Your task to perform on an android device: turn on showing notifications on the lock screen Image 0: 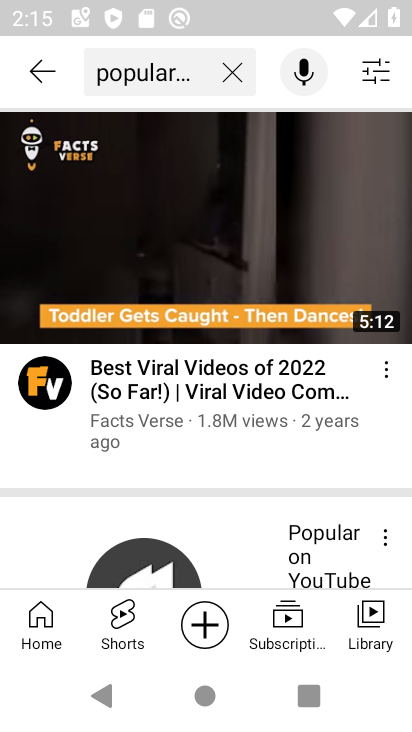
Step 0: press home button
Your task to perform on an android device: turn on showing notifications on the lock screen Image 1: 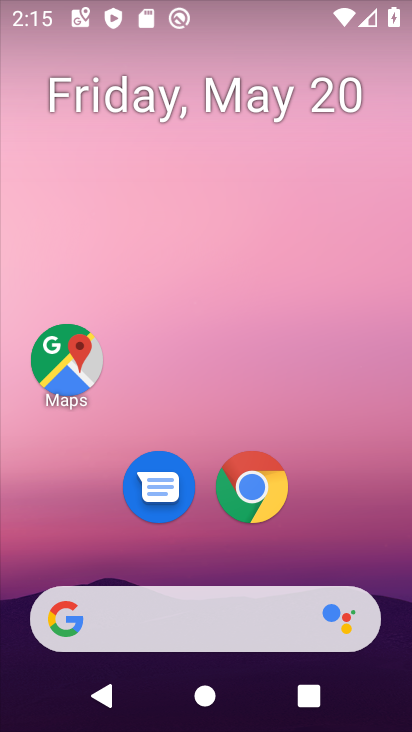
Step 1: drag from (337, 514) to (368, 14)
Your task to perform on an android device: turn on showing notifications on the lock screen Image 2: 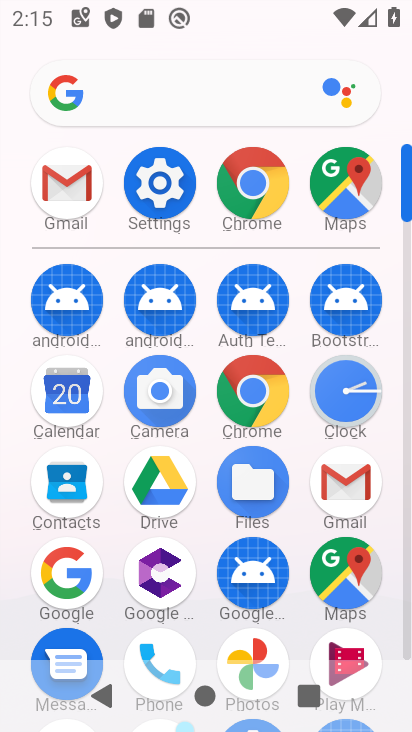
Step 2: click (161, 193)
Your task to perform on an android device: turn on showing notifications on the lock screen Image 3: 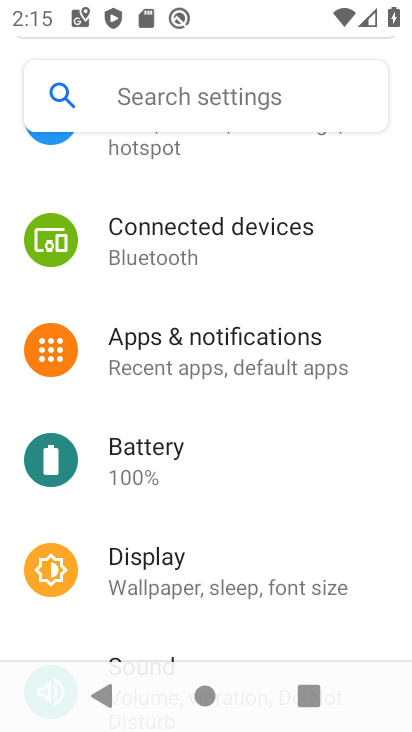
Step 3: click (250, 330)
Your task to perform on an android device: turn on showing notifications on the lock screen Image 4: 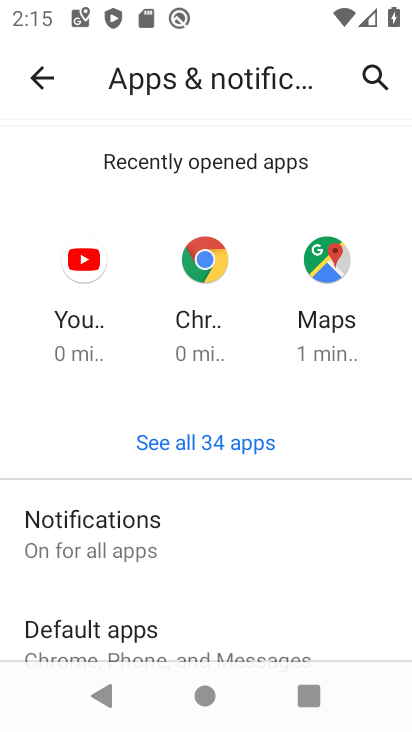
Step 4: click (64, 545)
Your task to perform on an android device: turn on showing notifications on the lock screen Image 5: 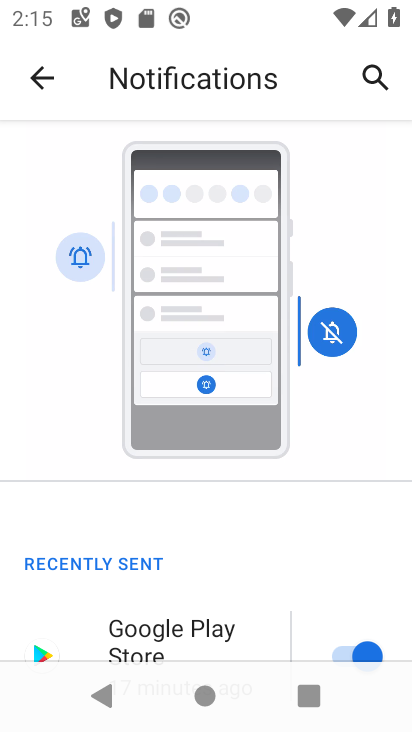
Step 5: drag from (226, 572) to (264, 159)
Your task to perform on an android device: turn on showing notifications on the lock screen Image 6: 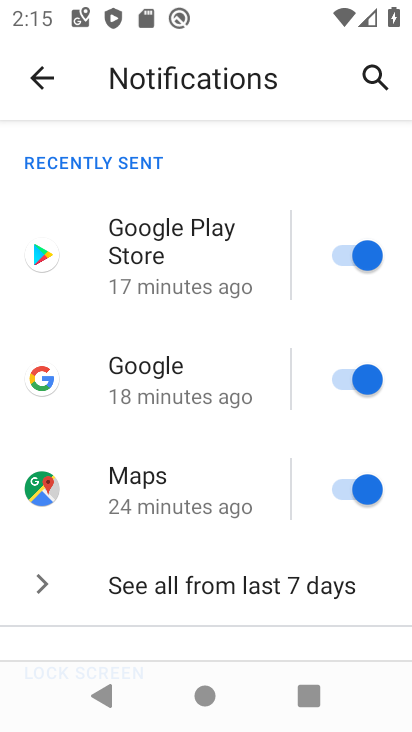
Step 6: drag from (322, 562) to (369, 140)
Your task to perform on an android device: turn on showing notifications on the lock screen Image 7: 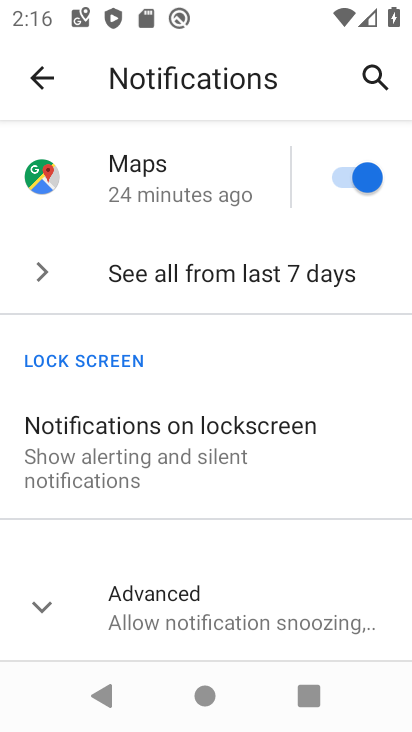
Step 7: click (171, 466)
Your task to perform on an android device: turn on showing notifications on the lock screen Image 8: 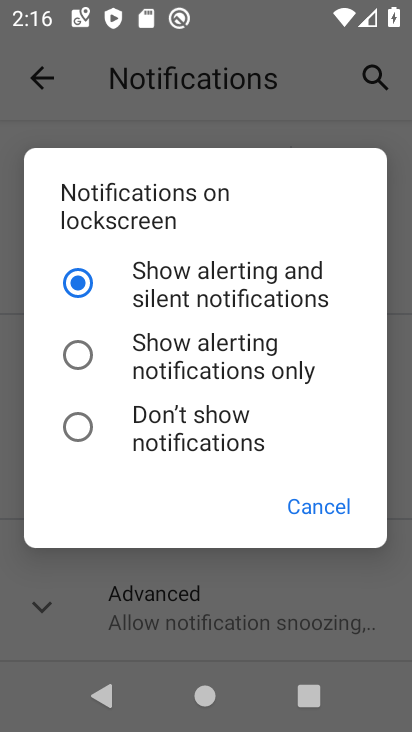
Step 8: click (187, 334)
Your task to perform on an android device: turn on showing notifications on the lock screen Image 9: 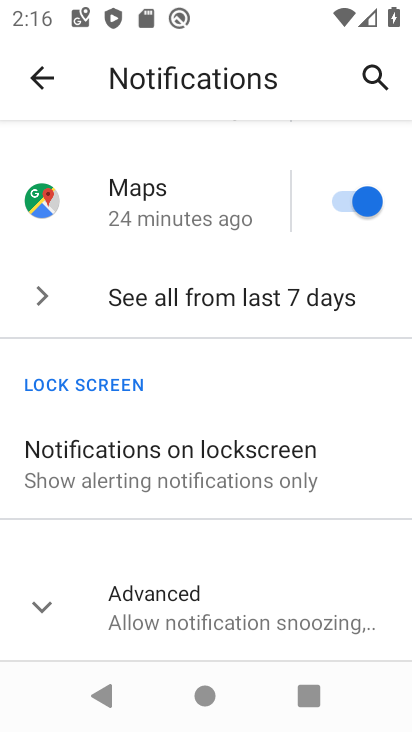
Step 9: task complete